Your task to perform on an android device: Open the calendar app, open the side menu, and click the "Day" option Image 0: 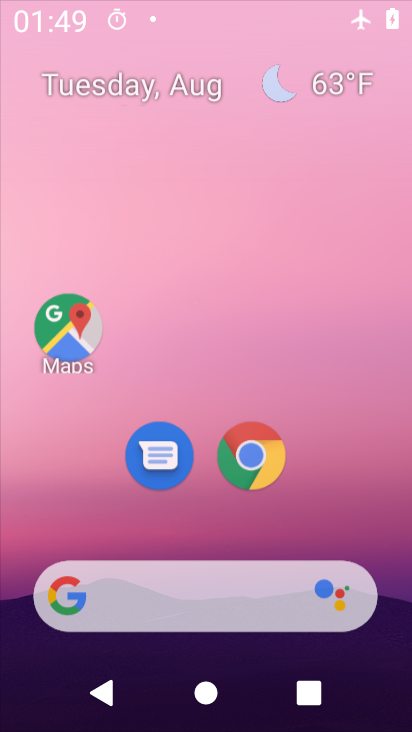
Step 0: press home button
Your task to perform on an android device: Open the calendar app, open the side menu, and click the "Day" option Image 1: 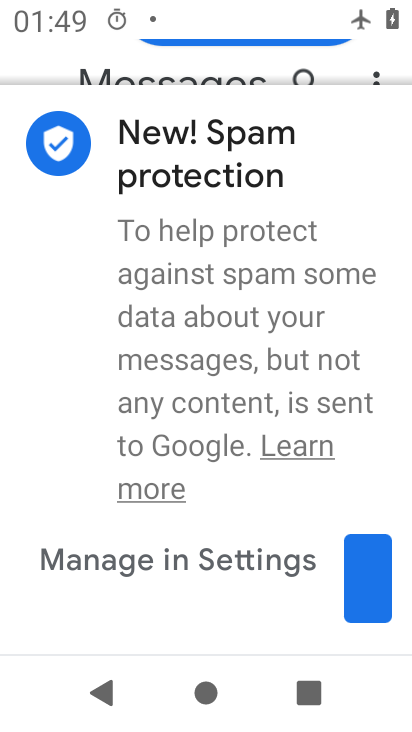
Step 1: drag from (358, 237) to (365, 161)
Your task to perform on an android device: Open the calendar app, open the side menu, and click the "Day" option Image 2: 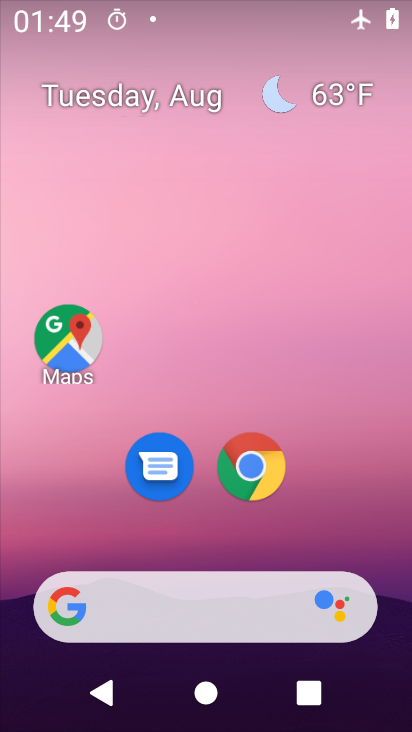
Step 2: drag from (369, 551) to (361, 128)
Your task to perform on an android device: Open the calendar app, open the side menu, and click the "Day" option Image 3: 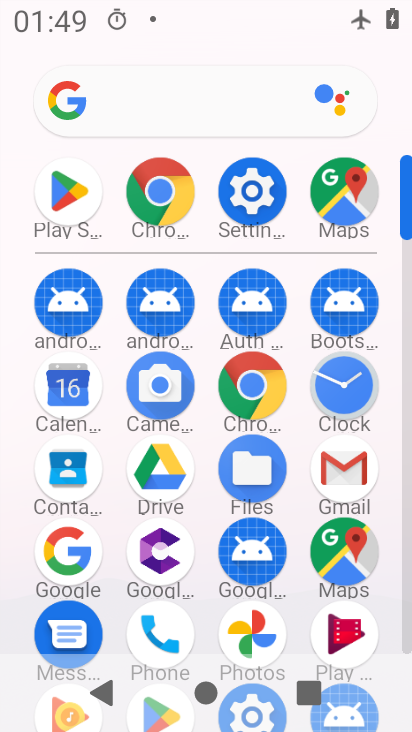
Step 3: click (67, 396)
Your task to perform on an android device: Open the calendar app, open the side menu, and click the "Day" option Image 4: 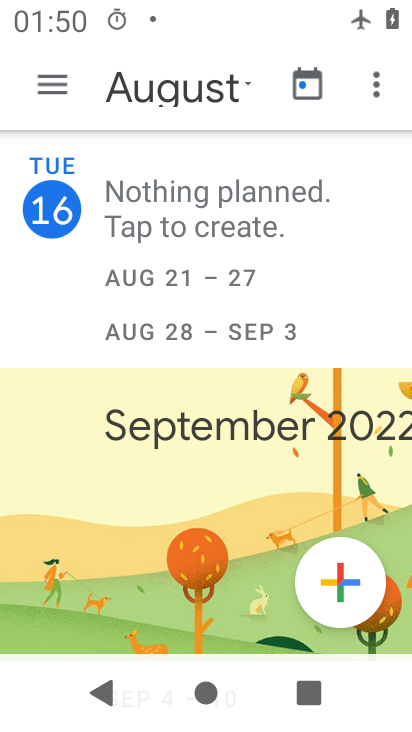
Step 4: click (52, 83)
Your task to perform on an android device: Open the calendar app, open the side menu, and click the "Day" option Image 5: 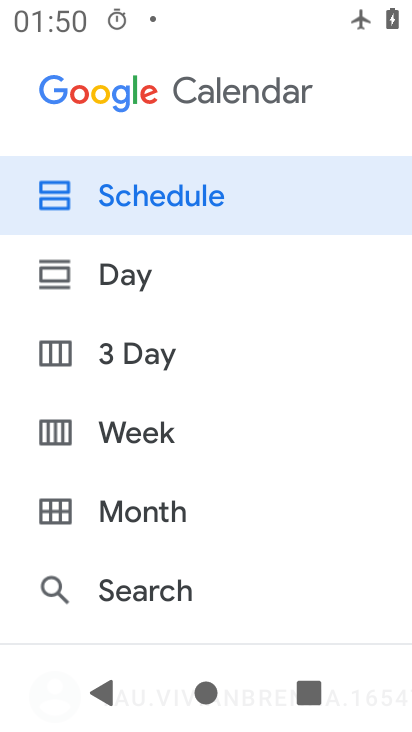
Step 5: click (135, 275)
Your task to perform on an android device: Open the calendar app, open the side menu, and click the "Day" option Image 6: 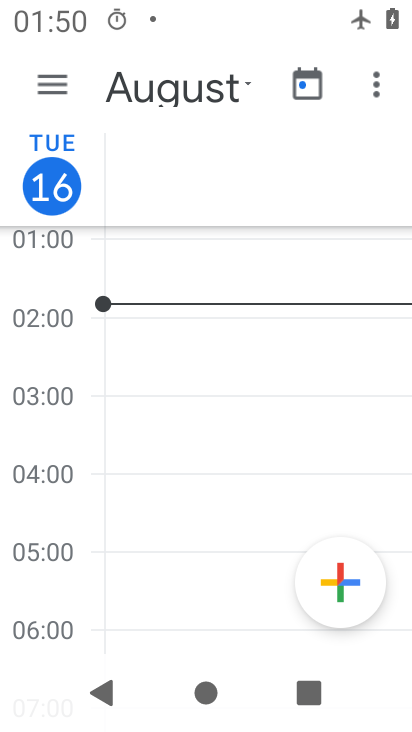
Step 6: task complete